Your task to perform on an android device: Install the Weather app Image 0: 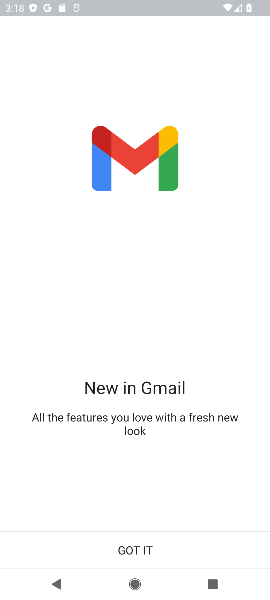
Step 0: press home button
Your task to perform on an android device: Install the Weather app Image 1: 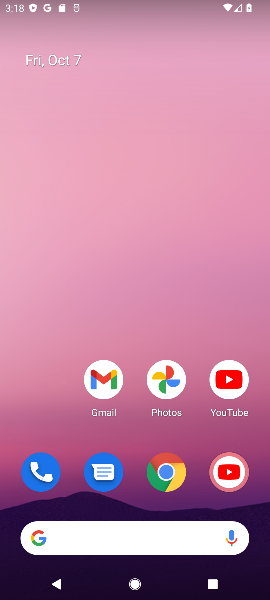
Step 1: drag from (142, 536) to (171, 178)
Your task to perform on an android device: Install the Weather app Image 2: 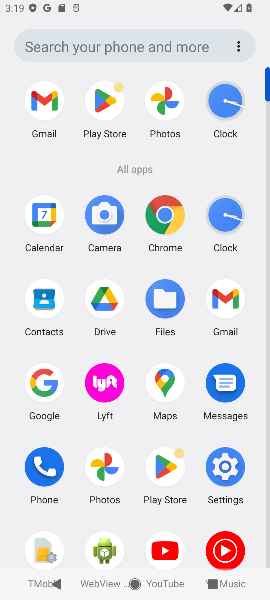
Step 2: click (104, 103)
Your task to perform on an android device: Install the Weather app Image 3: 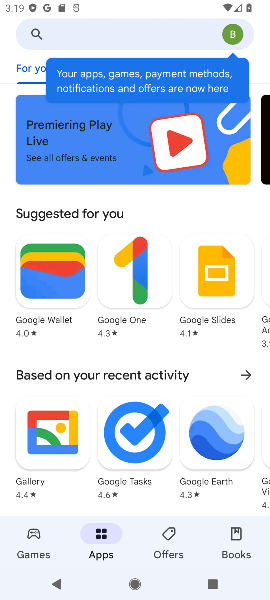
Step 3: click (148, 38)
Your task to perform on an android device: Install the Weather app Image 4: 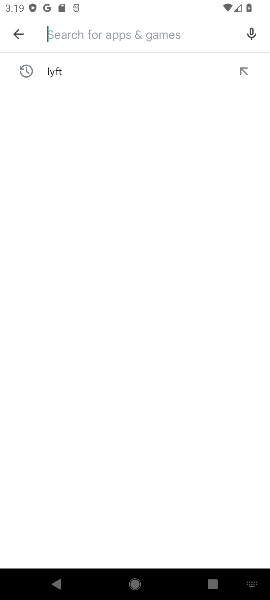
Step 4: type "Weather app"
Your task to perform on an android device: Install the Weather app Image 5: 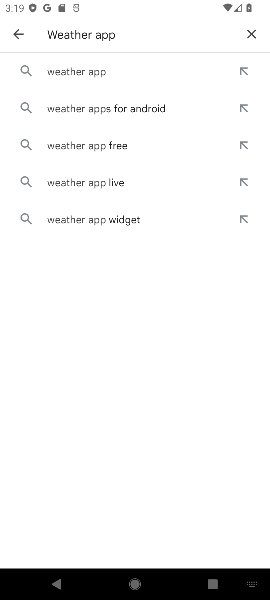
Step 5: click (83, 72)
Your task to perform on an android device: Install the Weather app Image 6: 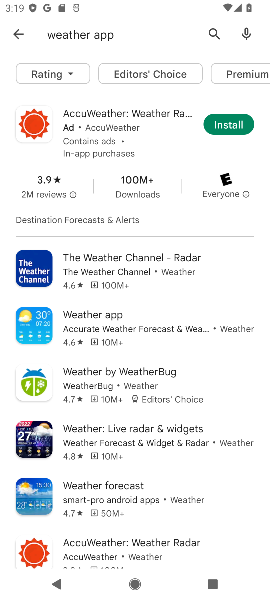
Step 6: click (107, 314)
Your task to perform on an android device: Install the Weather app Image 7: 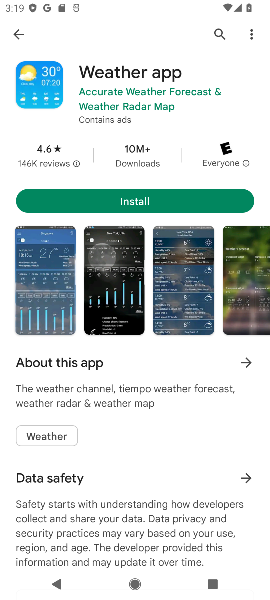
Step 7: click (161, 202)
Your task to perform on an android device: Install the Weather app Image 8: 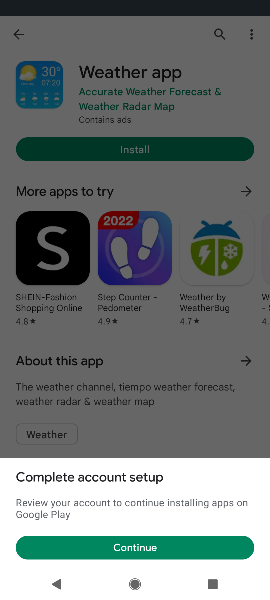
Step 8: click (150, 548)
Your task to perform on an android device: Install the Weather app Image 9: 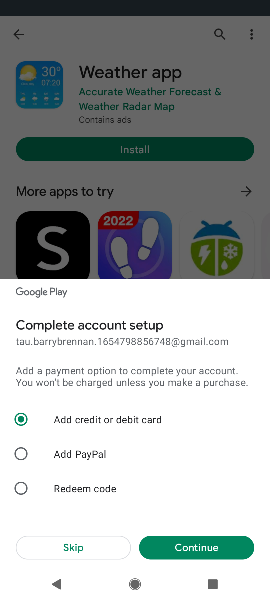
Step 9: click (95, 547)
Your task to perform on an android device: Install the Weather app Image 10: 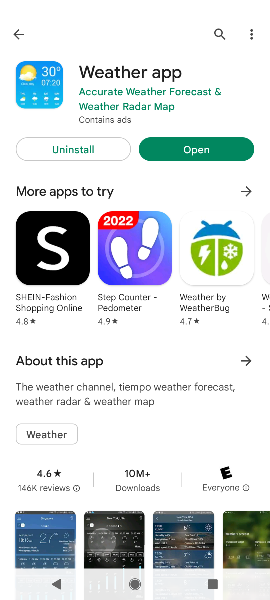
Step 10: task complete